Your task to perform on an android device: set the stopwatch Image 0: 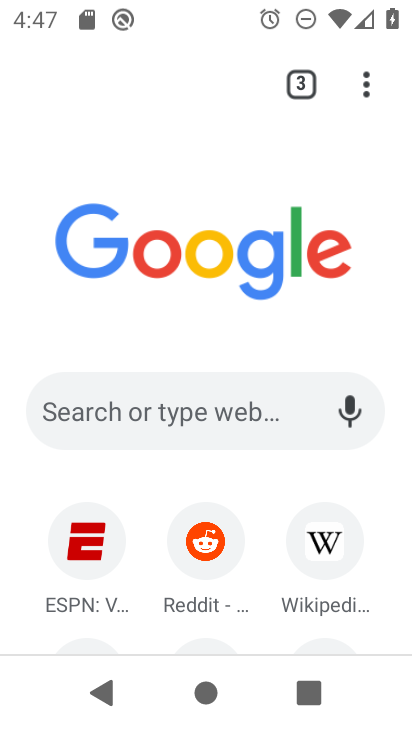
Step 0: press home button
Your task to perform on an android device: set the stopwatch Image 1: 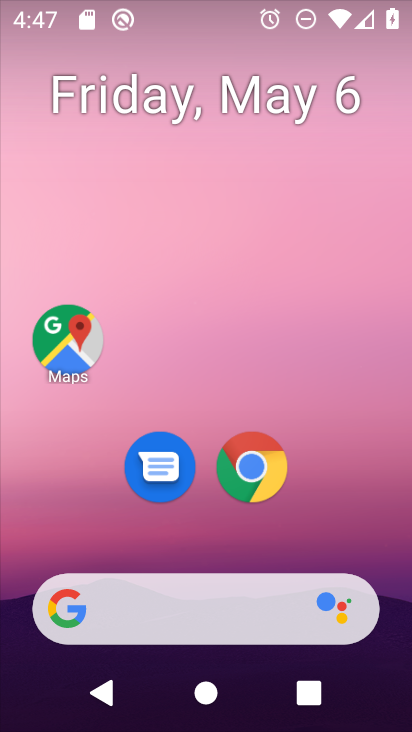
Step 1: drag from (326, 461) to (363, 133)
Your task to perform on an android device: set the stopwatch Image 2: 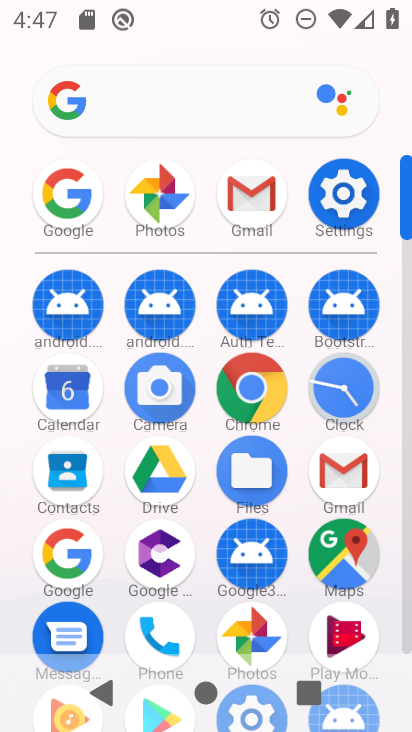
Step 2: click (342, 407)
Your task to perform on an android device: set the stopwatch Image 3: 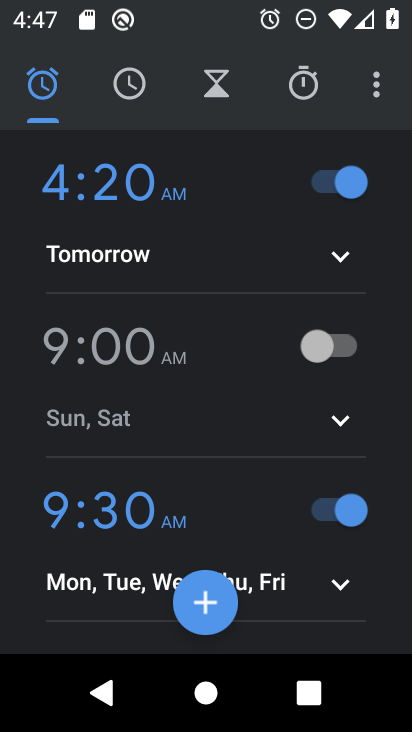
Step 3: click (315, 84)
Your task to perform on an android device: set the stopwatch Image 4: 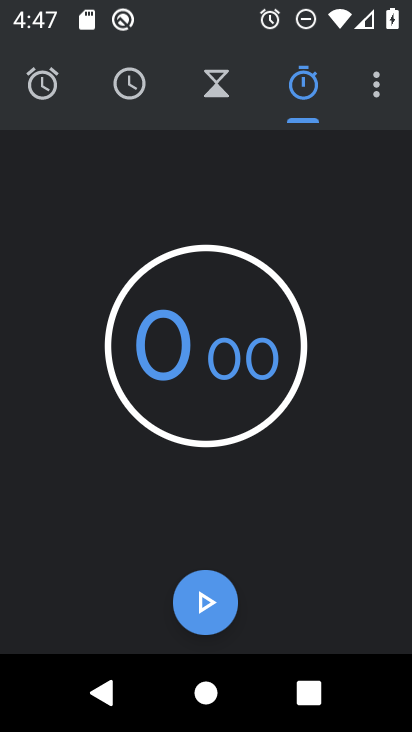
Step 4: click (201, 604)
Your task to perform on an android device: set the stopwatch Image 5: 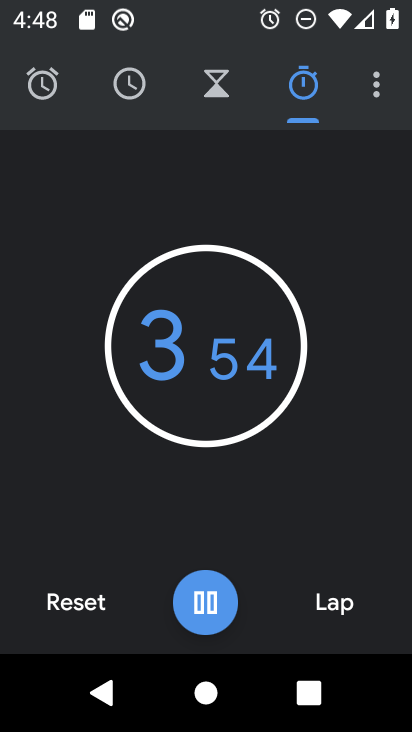
Step 5: task complete